Your task to perform on an android device: Open sound settings Image 0: 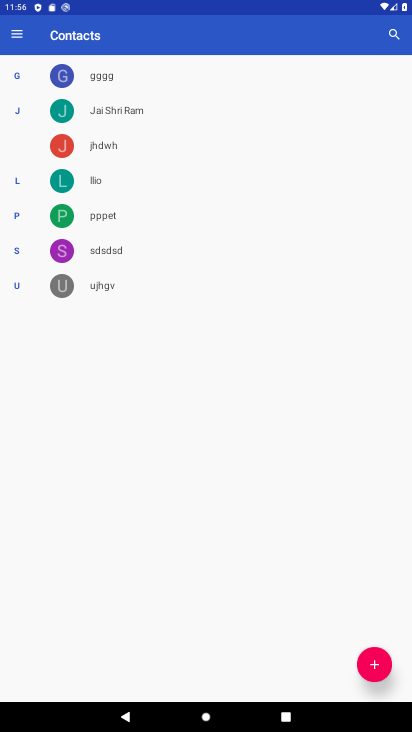
Step 0: press home button
Your task to perform on an android device: Open sound settings Image 1: 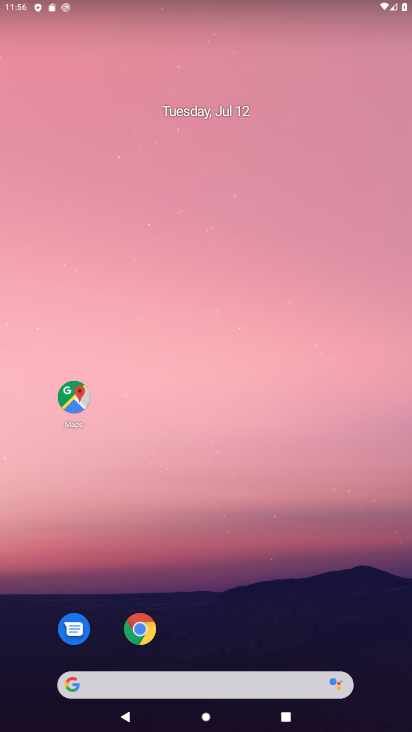
Step 1: click (212, 635)
Your task to perform on an android device: Open sound settings Image 2: 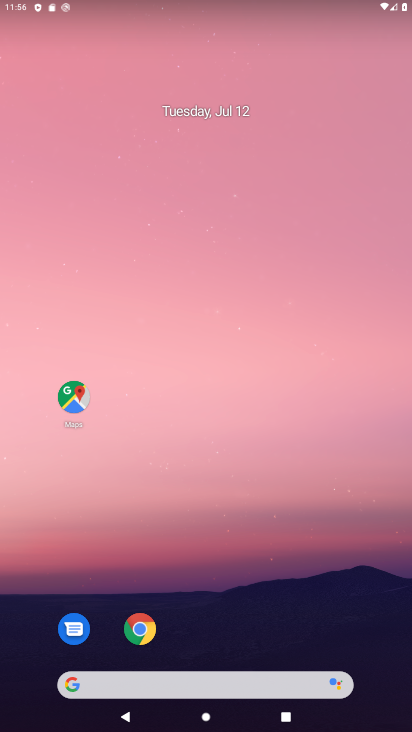
Step 2: drag from (224, 535) to (109, 163)
Your task to perform on an android device: Open sound settings Image 3: 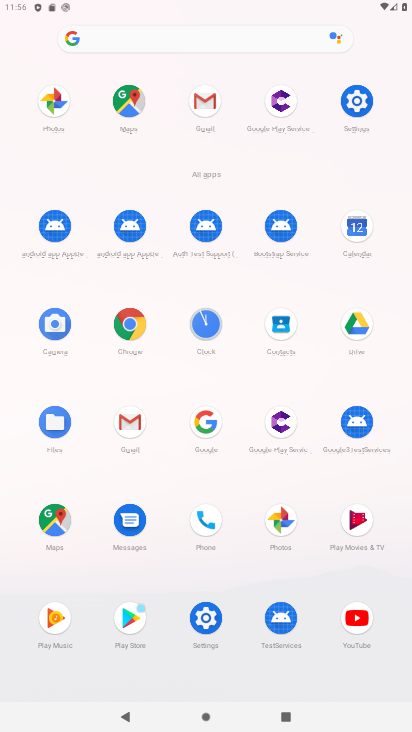
Step 3: click (351, 118)
Your task to perform on an android device: Open sound settings Image 4: 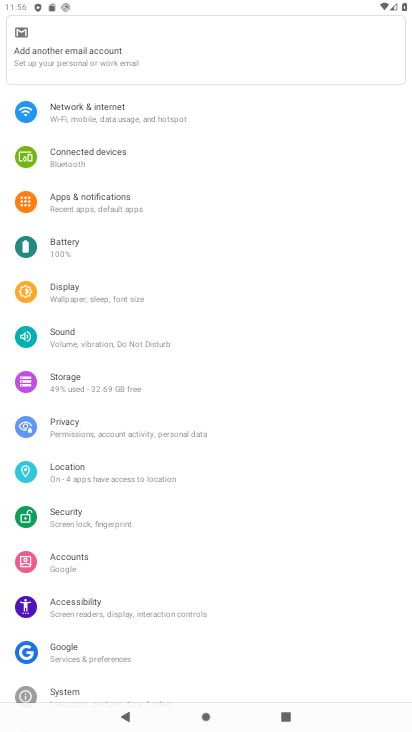
Step 4: click (64, 337)
Your task to perform on an android device: Open sound settings Image 5: 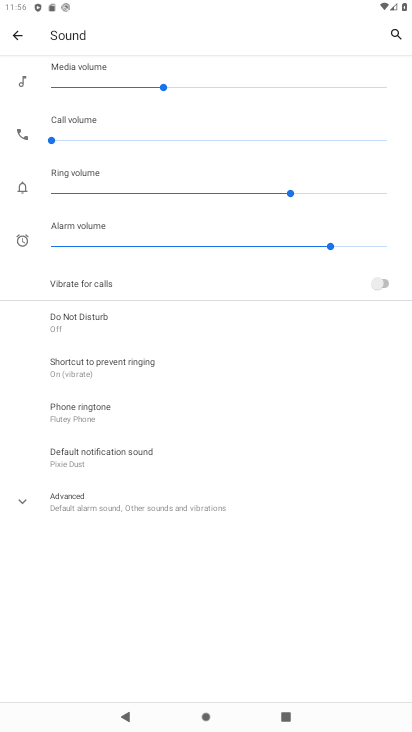
Step 5: task complete